Your task to perform on an android device: turn on location history Image 0: 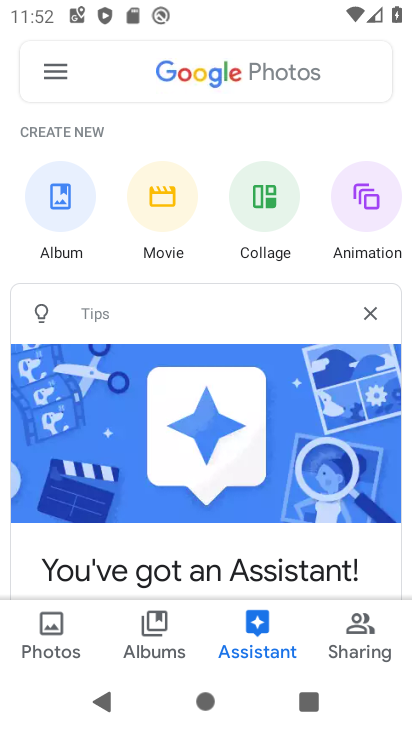
Step 0: press home button
Your task to perform on an android device: turn on location history Image 1: 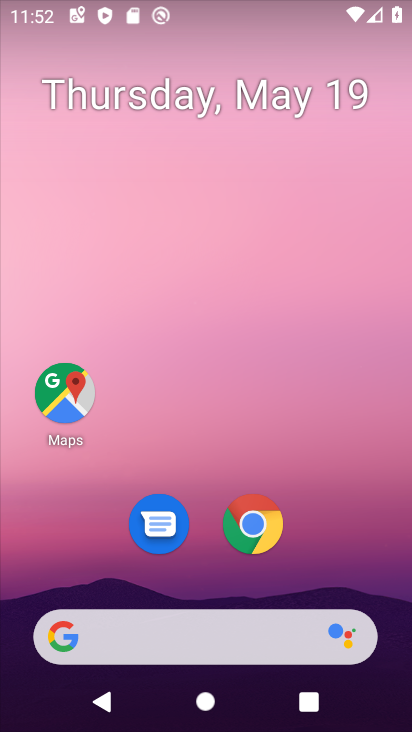
Step 1: drag from (220, 408) to (226, 44)
Your task to perform on an android device: turn on location history Image 2: 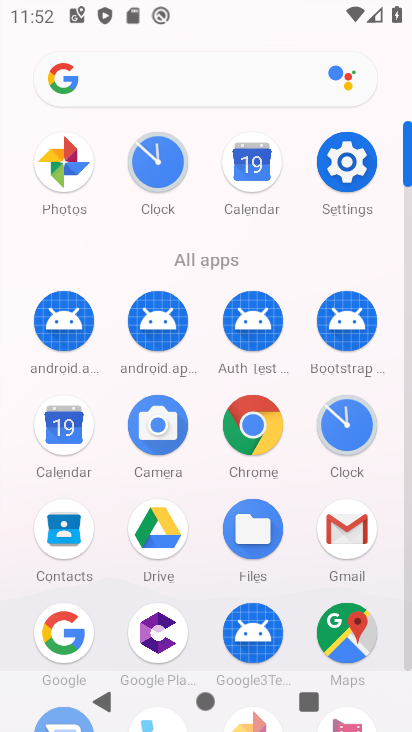
Step 2: click (350, 155)
Your task to perform on an android device: turn on location history Image 3: 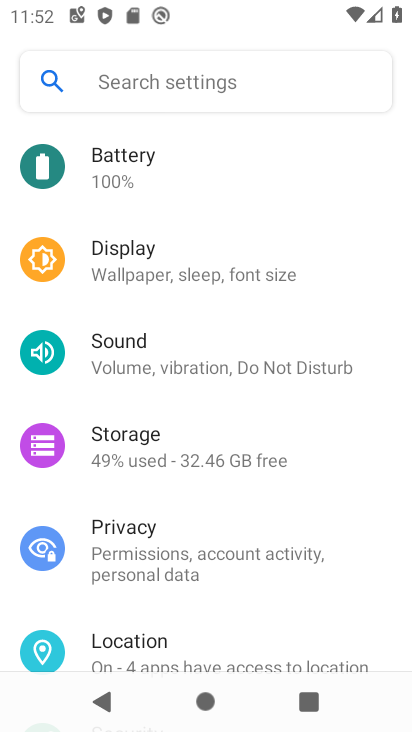
Step 3: click (228, 651)
Your task to perform on an android device: turn on location history Image 4: 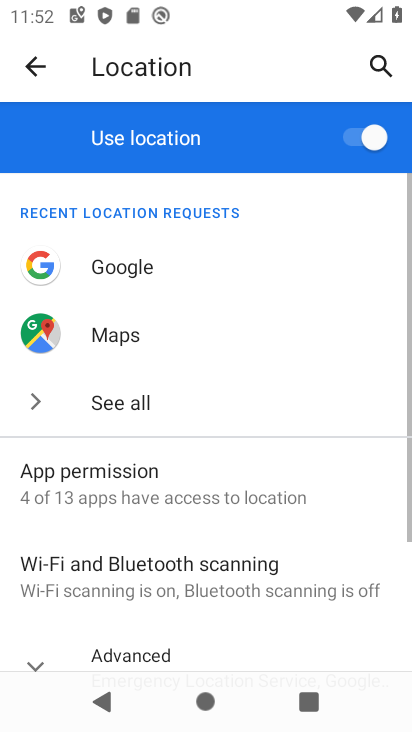
Step 4: drag from (272, 396) to (269, 151)
Your task to perform on an android device: turn on location history Image 5: 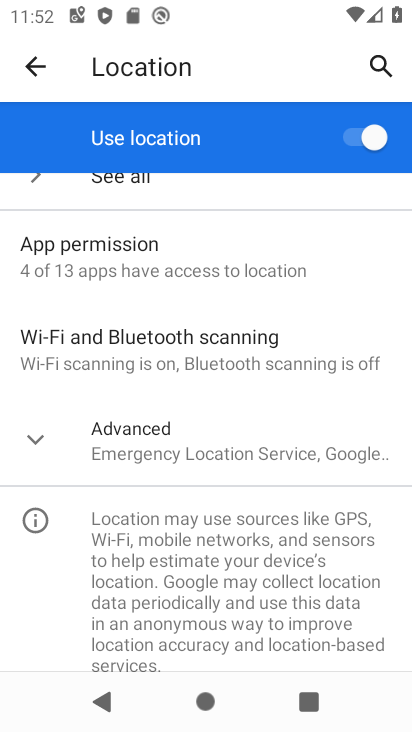
Step 5: click (37, 443)
Your task to perform on an android device: turn on location history Image 6: 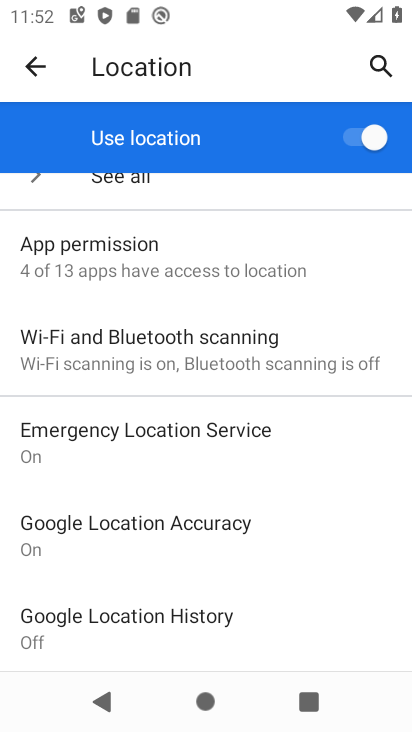
Step 6: click (183, 614)
Your task to perform on an android device: turn on location history Image 7: 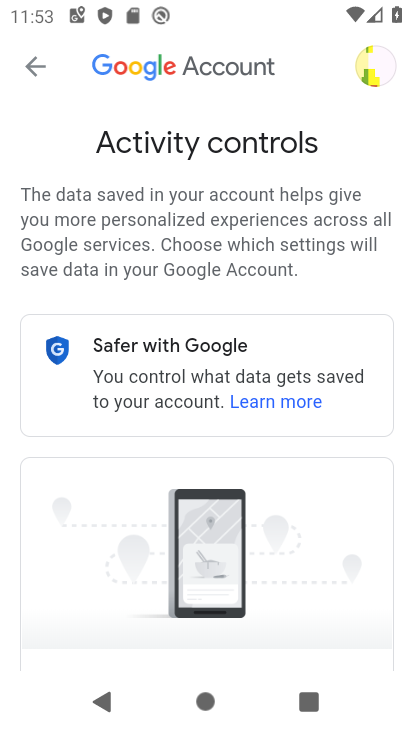
Step 7: drag from (311, 520) to (294, 134)
Your task to perform on an android device: turn on location history Image 8: 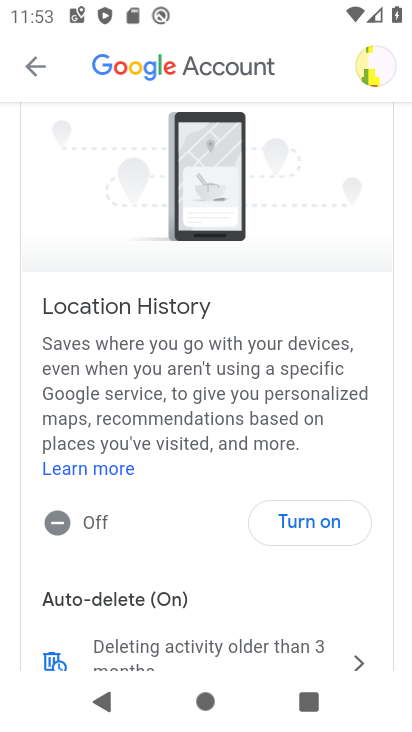
Step 8: click (317, 519)
Your task to perform on an android device: turn on location history Image 9: 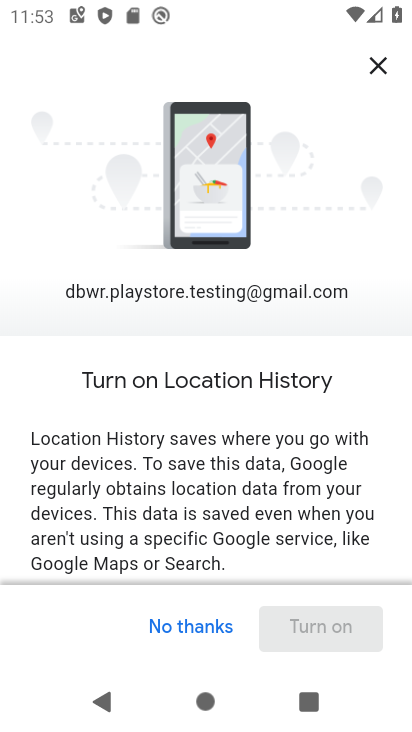
Step 9: drag from (306, 484) to (290, 86)
Your task to perform on an android device: turn on location history Image 10: 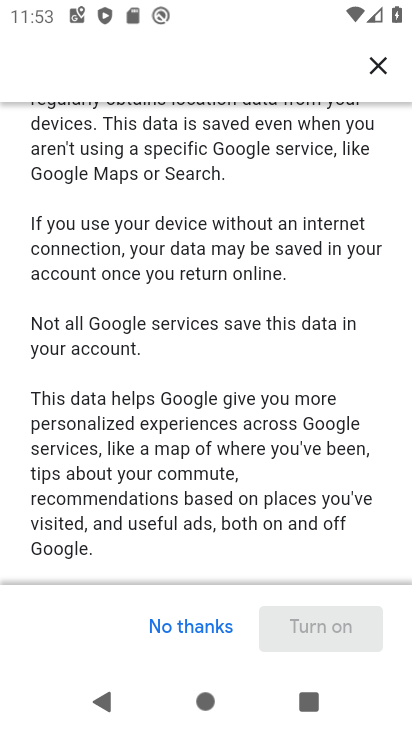
Step 10: drag from (286, 404) to (259, 36)
Your task to perform on an android device: turn on location history Image 11: 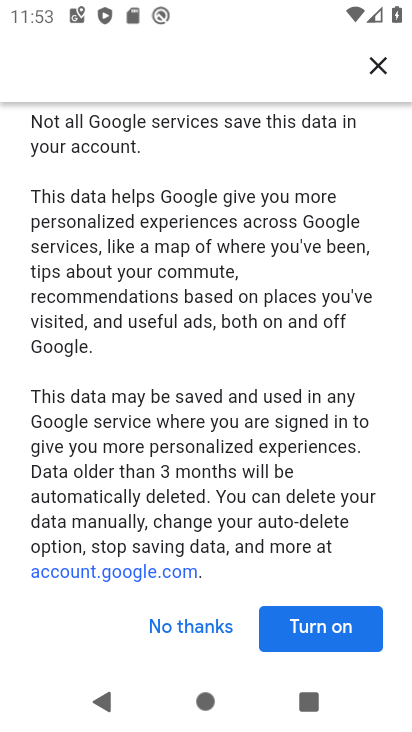
Step 11: click (331, 624)
Your task to perform on an android device: turn on location history Image 12: 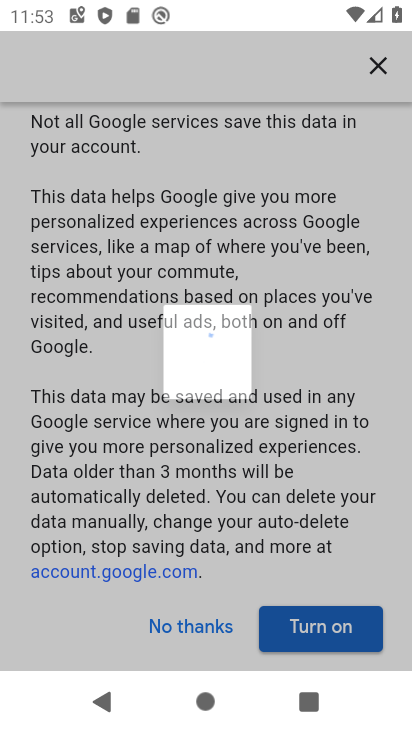
Step 12: click (329, 624)
Your task to perform on an android device: turn on location history Image 13: 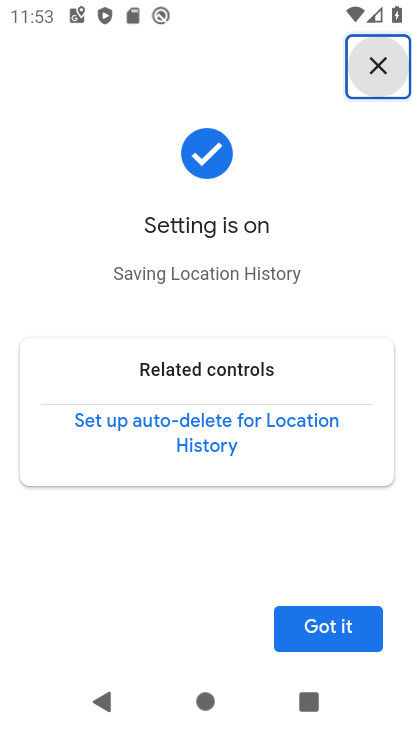
Step 13: click (329, 622)
Your task to perform on an android device: turn on location history Image 14: 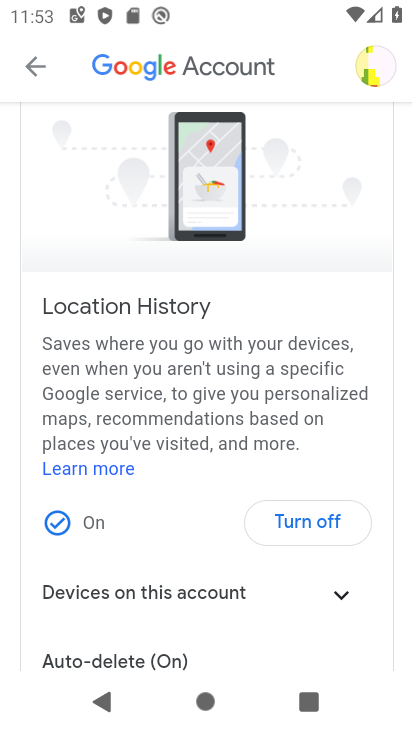
Step 14: task complete